Your task to perform on an android device: star an email in the gmail app Image 0: 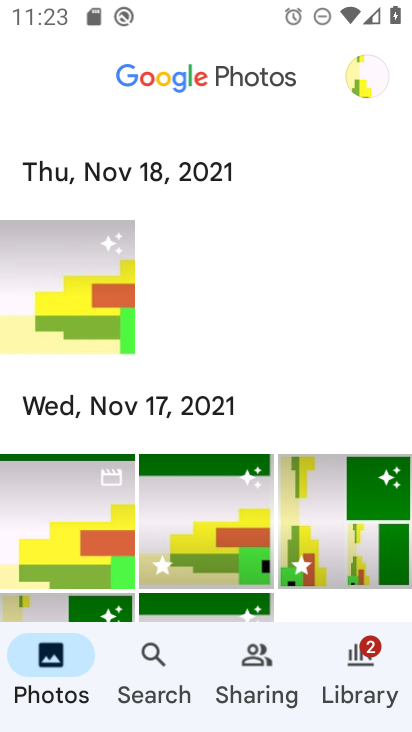
Step 0: press back button
Your task to perform on an android device: star an email in the gmail app Image 1: 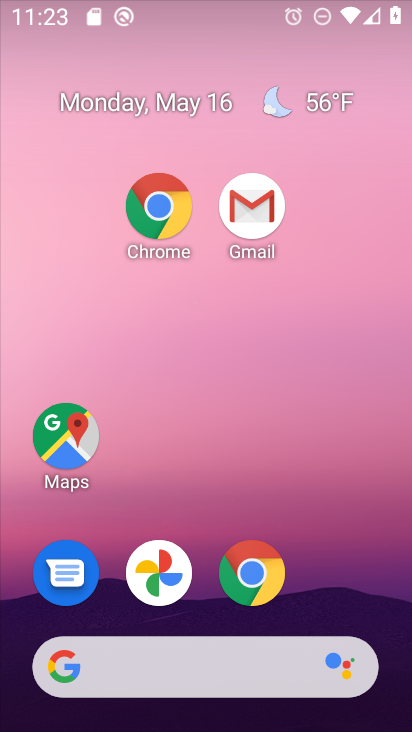
Step 1: drag from (362, 607) to (73, 62)
Your task to perform on an android device: star an email in the gmail app Image 2: 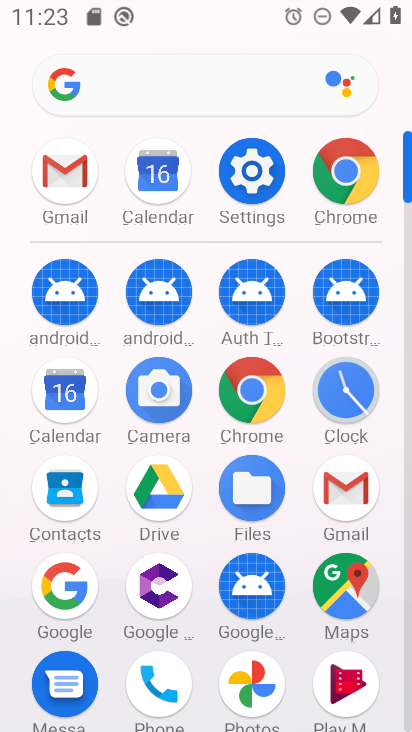
Step 2: click (358, 484)
Your task to perform on an android device: star an email in the gmail app Image 3: 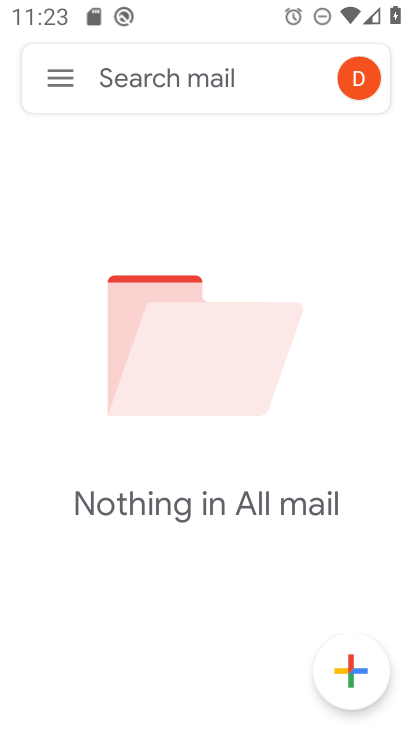
Step 3: click (52, 80)
Your task to perform on an android device: star an email in the gmail app Image 4: 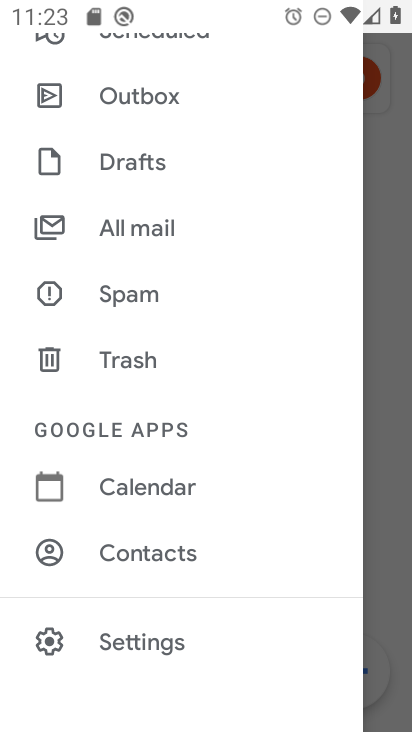
Step 4: click (127, 230)
Your task to perform on an android device: star an email in the gmail app Image 5: 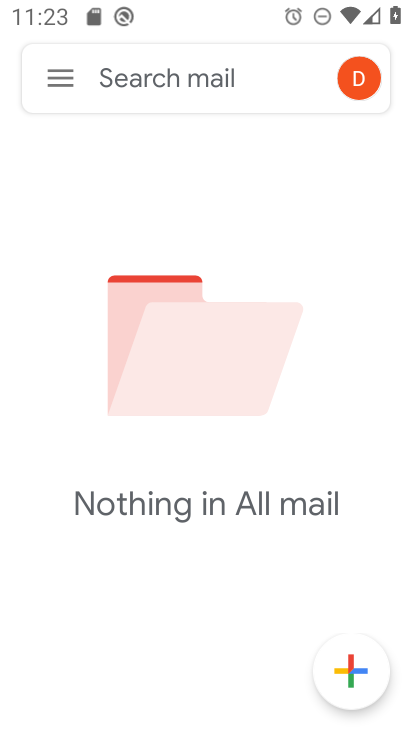
Step 5: task complete